Your task to perform on an android device: Clear the shopping cart on ebay. Search for jbl charge 4 on ebay, select the first entry, and add it to the cart. Image 0: 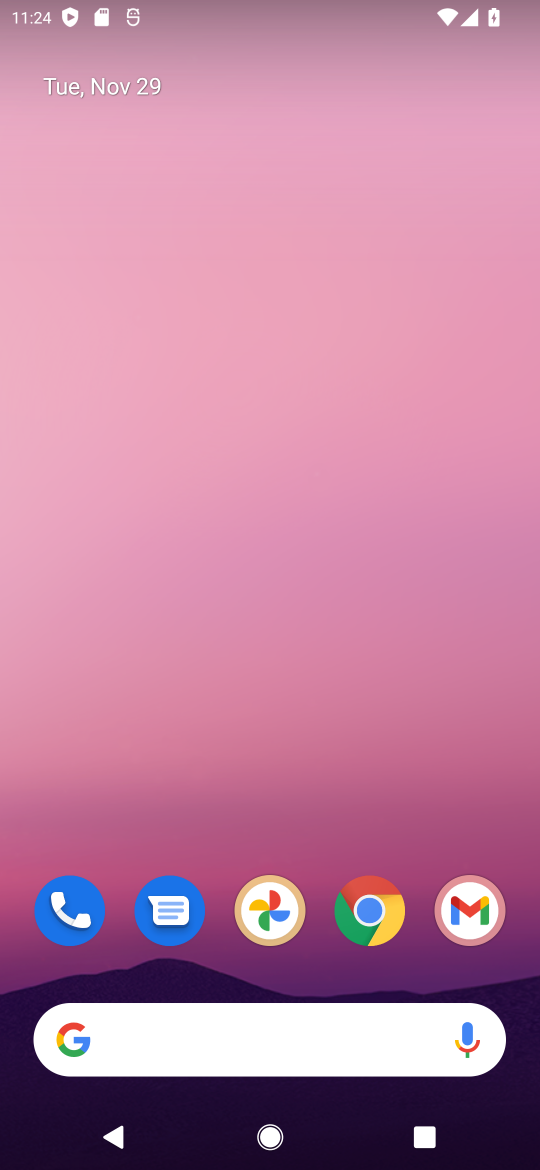
Step 0: click (378, 912)
Your task to perform on an android device: Clear the shopping cart on ebay. Search for jbl charge 4 on ebay, select the first entry, and add it to the cart. Image 1: 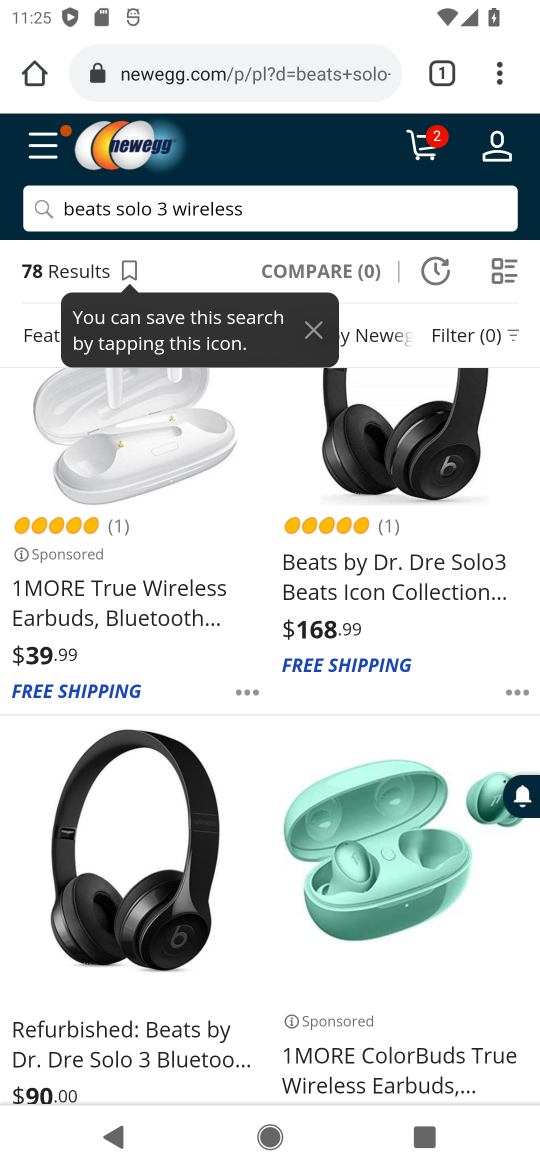
Step 1: click (198, 68)
Your task to perform on an android device: Clear the shopping cart on ebay. Search for jbl charge 4 on ebay, select the first entry, and add it to the cart. Image 2: 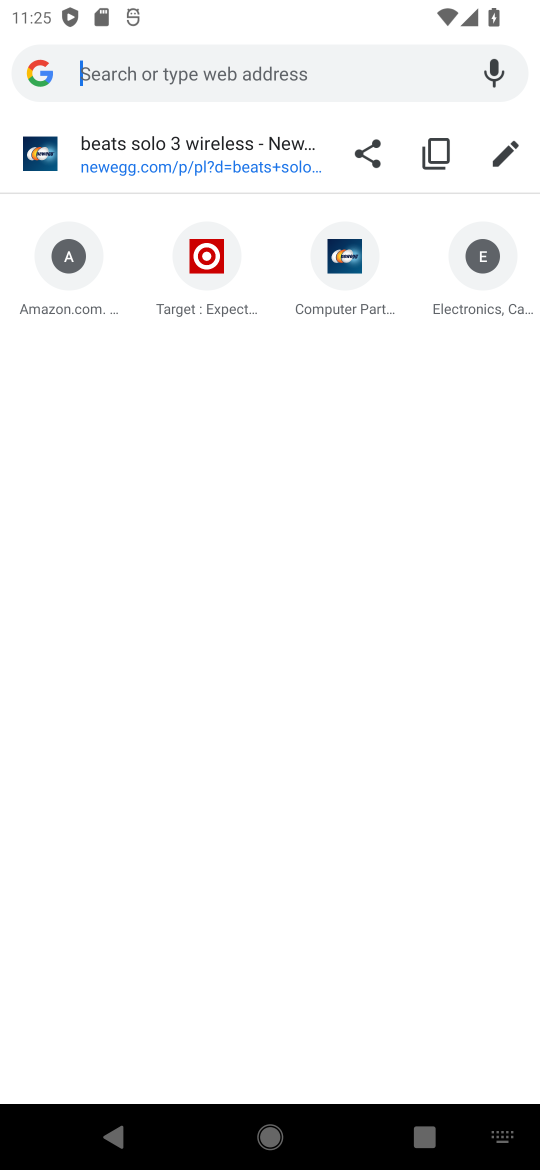
Step 2: type "ebay.com"
Your task to perform on an android device: Clear the shopping cart on ebay. Search for jbl charge 4 on ebay, select the first entry, and add it to the cart. Image 3: 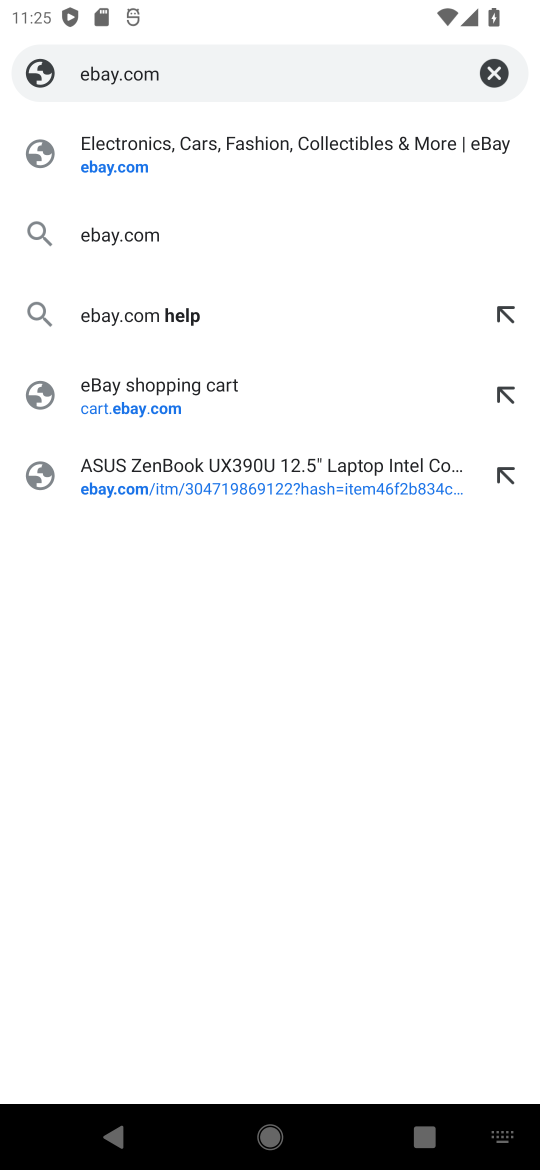
Step 3: click (108, 165)
Your task to perform on an android device: Clear the shopping cart on ebay. Search for jbl charge 4 on ebay, select the first entry, and add it to the cart. Image 4: 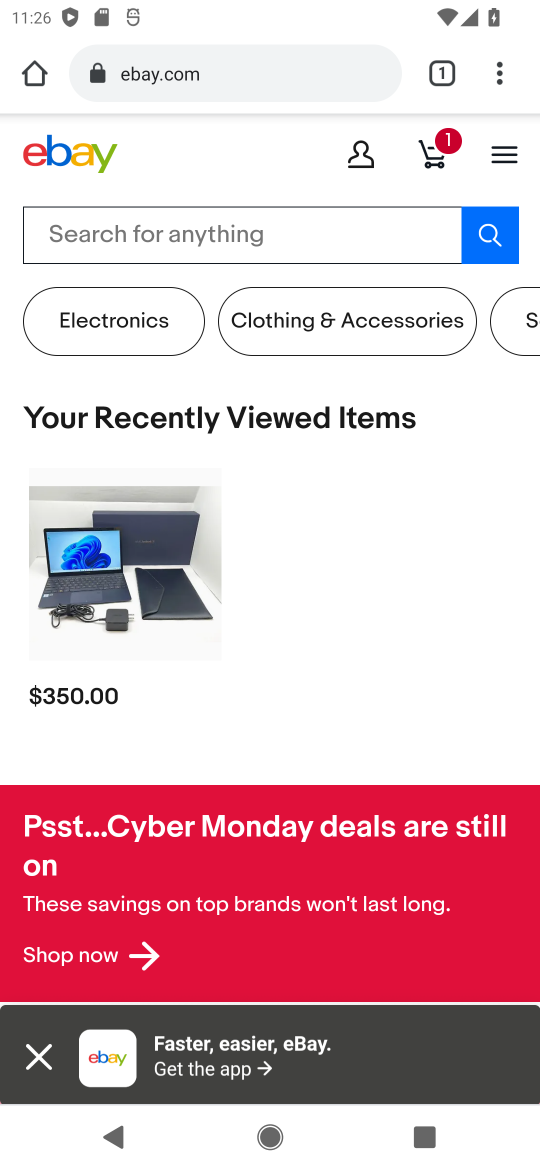
Step 4: click (441, 148)
Your task to perform on an android device: Clear the shopping cart on ebay. Search for jbl charge 4 on ebay, select the first entry, and add it to the cart. Image 5: 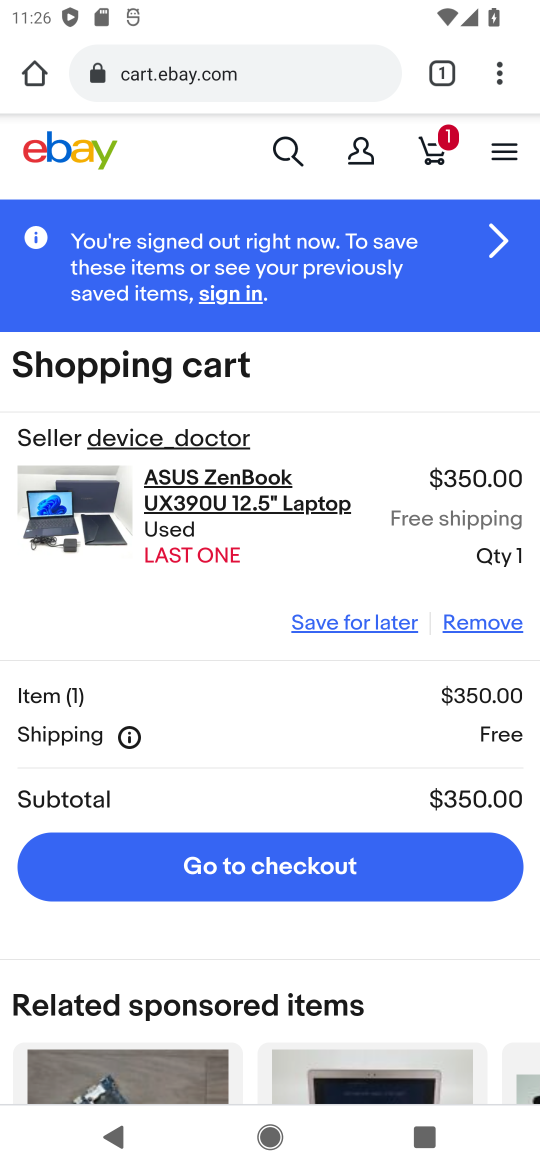
Step 5: click (478, 627)
Your task to perform on an android device: Clear the shopping cart on ebay. Search for jbl charge 4 on ebay, select the first entry, and add it to the cart. Image 6: 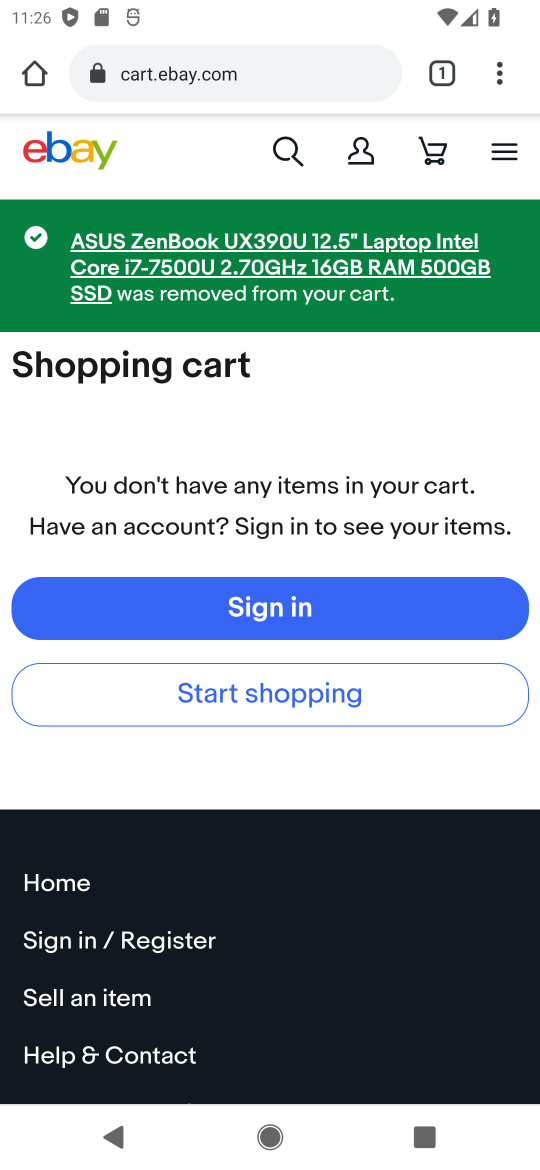
Step 6: click (291, 142)
Your task to perform on an android device: Clear the shopping cart on ebay. Search for jbl charge 4 on ebay, select the first entry, and add it to the cart. Image 7: 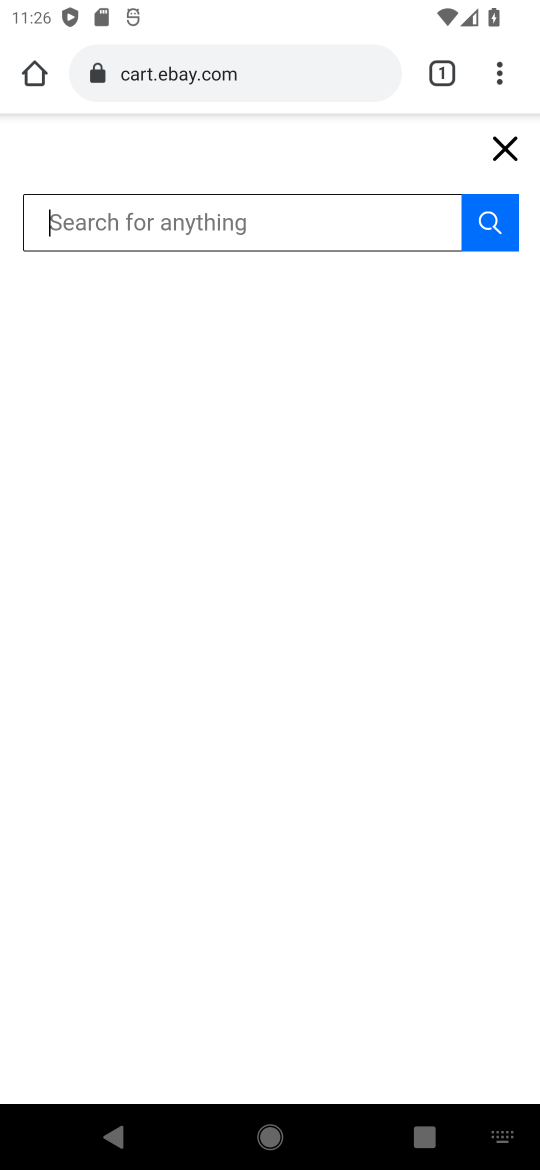
Step 7: type "jbl charge 4 "
Your task to perform on an android device: Clear the shopping cart on ebay. Search for jbl charge 4 on ebay, select the first entry, and add it to the cart. Image 8: 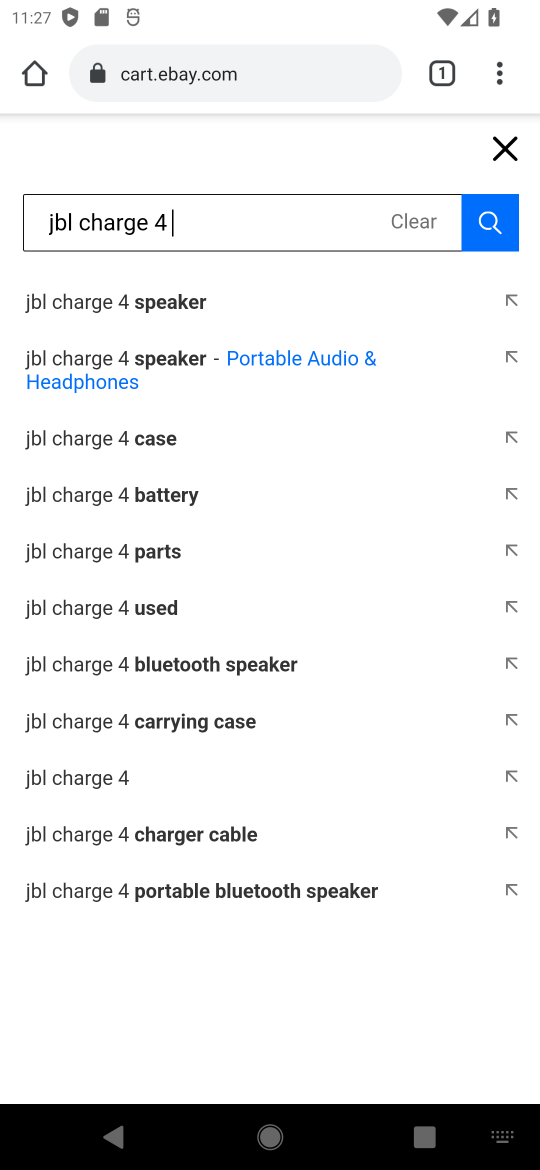
Step 8: click (60, 788)
Your task to perform on an android device: Clear the shopping cart on ebay. Search for jbl charge 4 on ebay, select the first entry, and add it to the cart. Image 9: 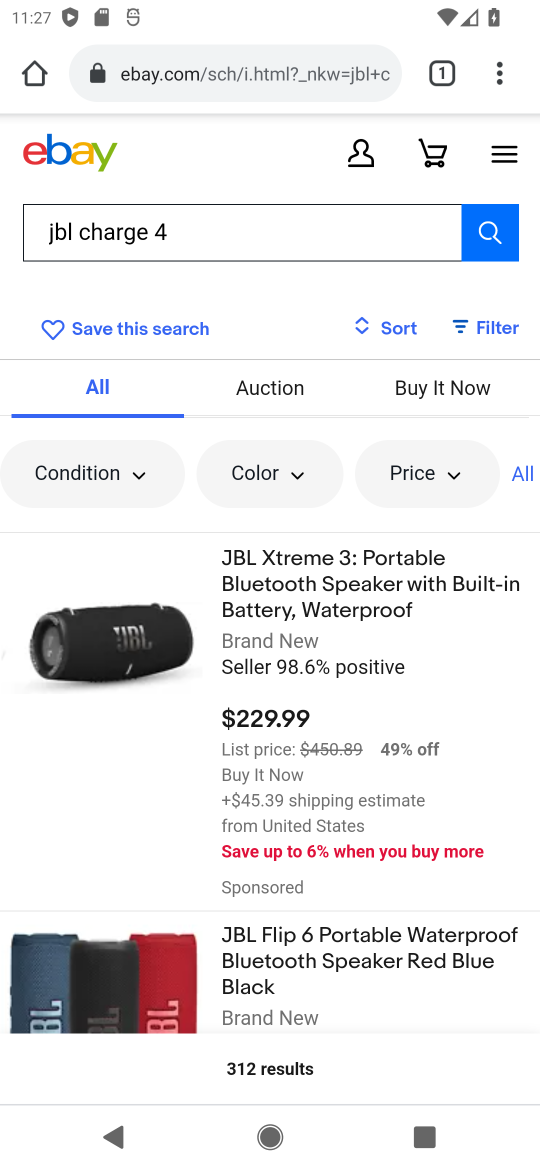
Step 9: task complete